Your task to perform on an android device: change the clock display to show seconds Image 0: 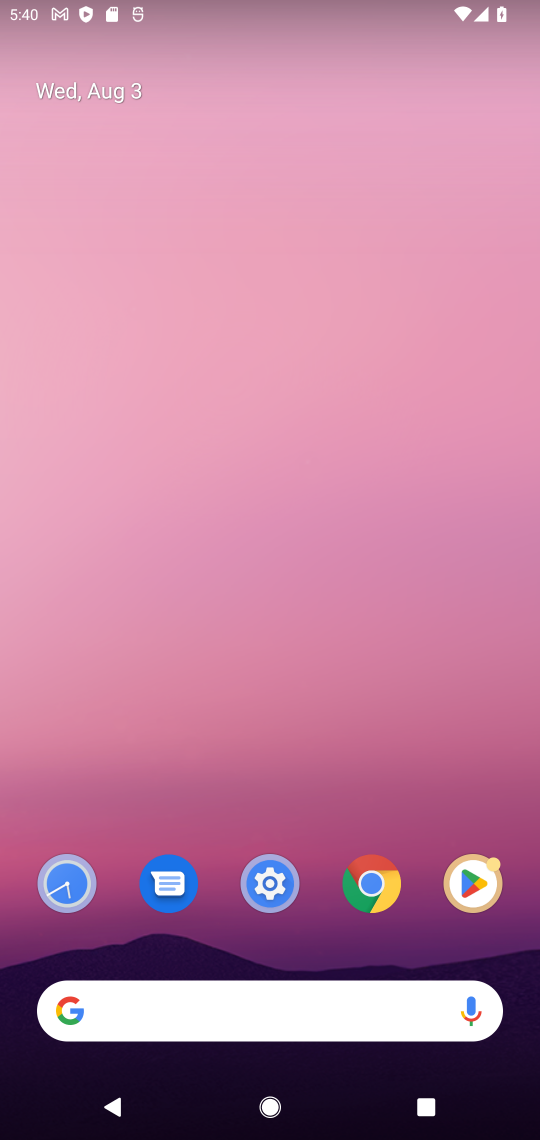
Step 0: drag from (294, 785) to (312, 0)
Your task to perform on an android device: change the clock display to show seconds Image 1: 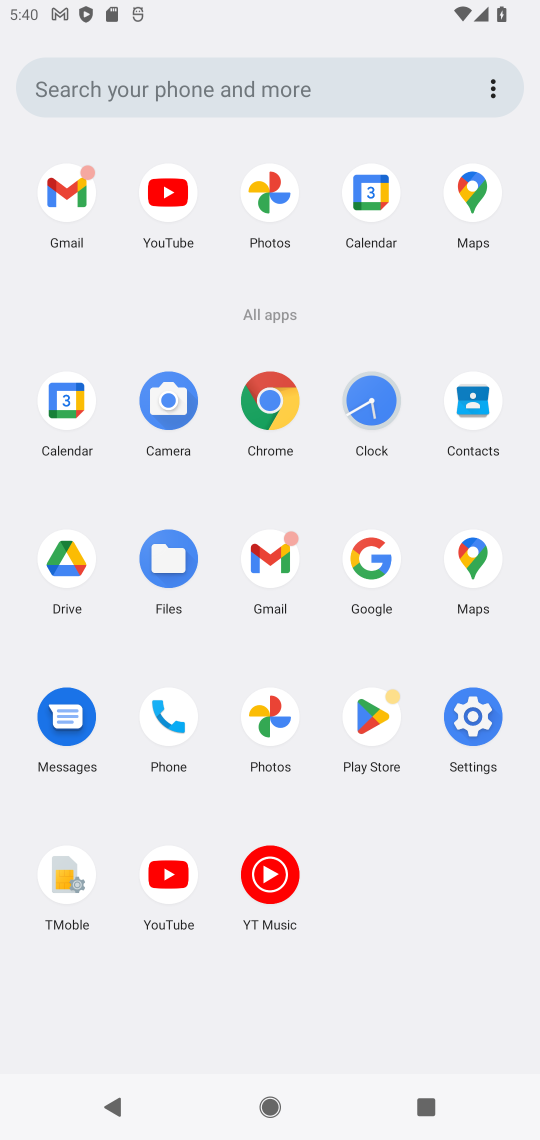
Step 1: click (469, 713)
Your task to perform on an android device: change the clock display to show seconds Image 2: 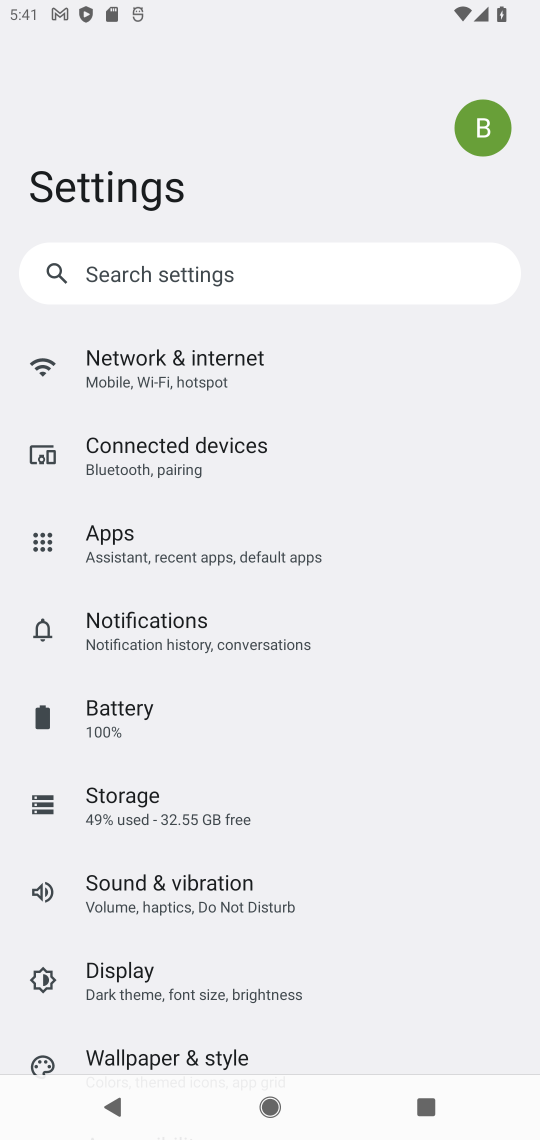
Step 2: click (131, 993)
Your task to perform on an android device: change the clock display to show seconds Image 3: 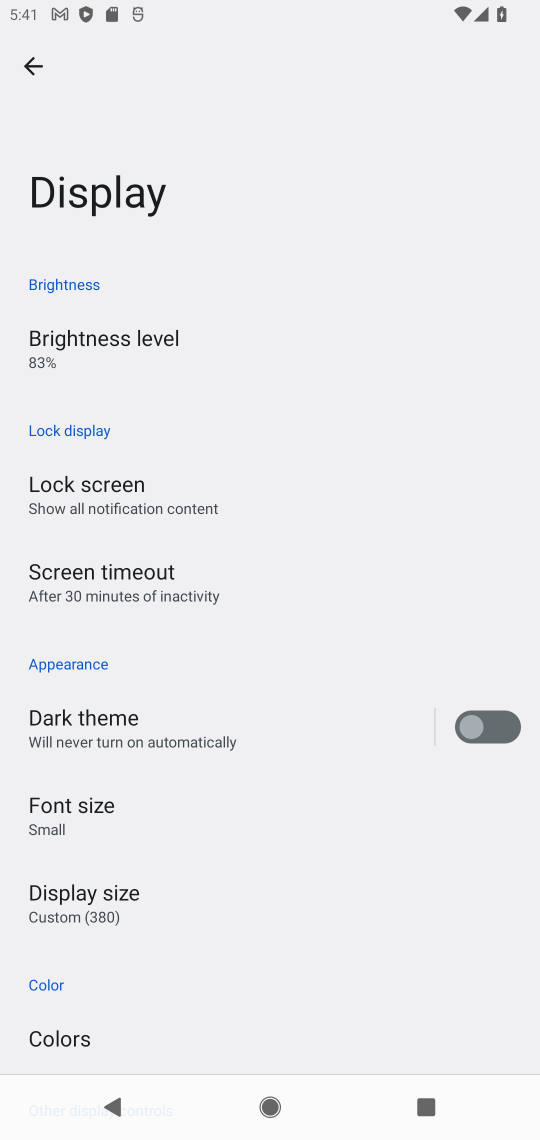
Step 3: click (123, 895)
Your task to perform on an android device: change the clock display to show seconds Image 4: 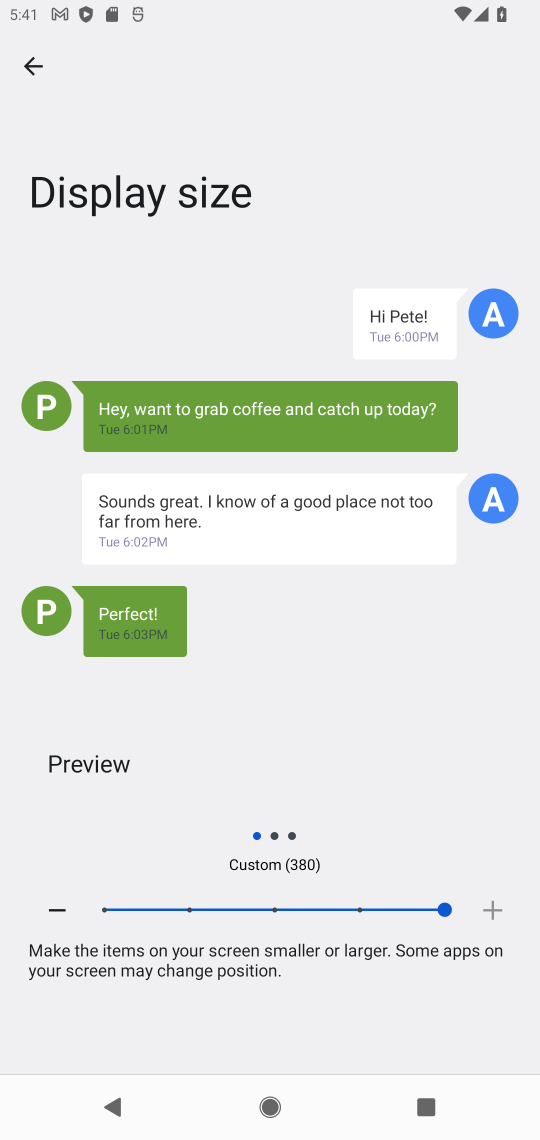
Step 4: click (49, 909)
Your task to perform on an android device: change the clock display to show seconds Image 5: 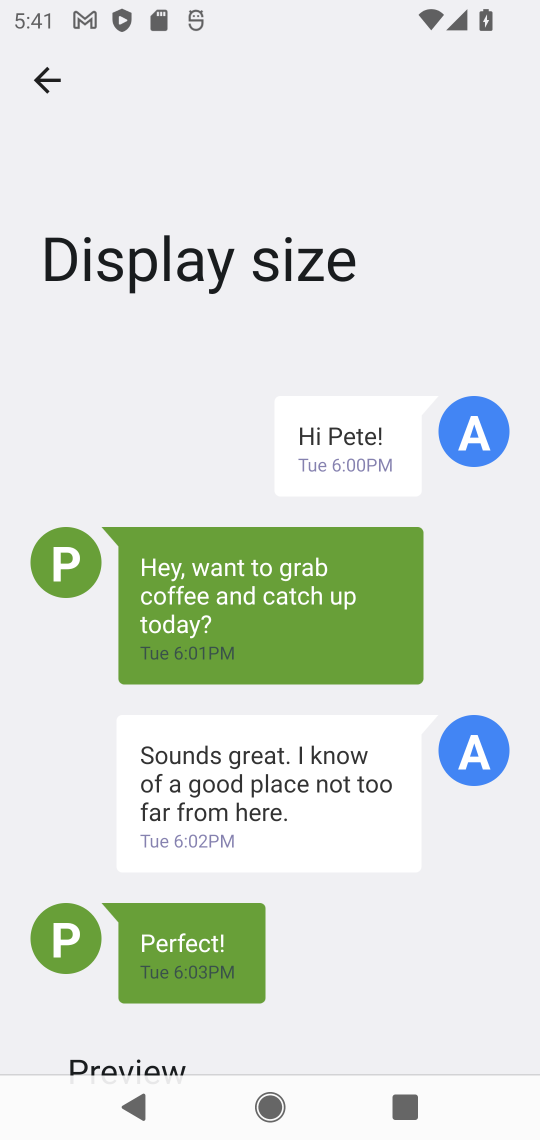
Step 5: drag from (281, 983) to (355, 183)
Your task to perform on an android device: change the clock display to show seconds Image 6: 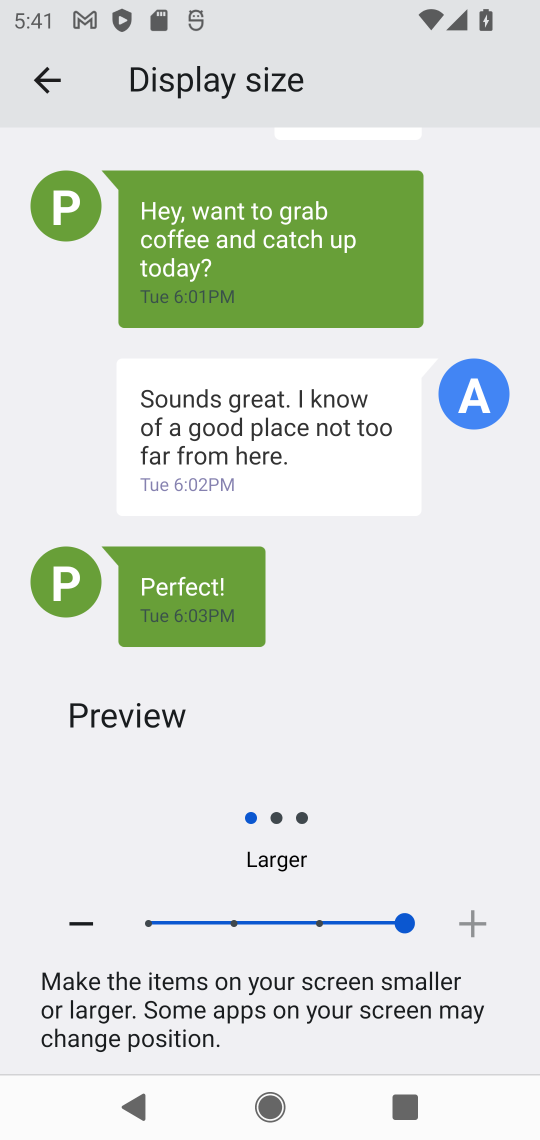
Step 6: click (315, 921)
Your task to perform on an android device: change the clock display to show seconds Image 7: 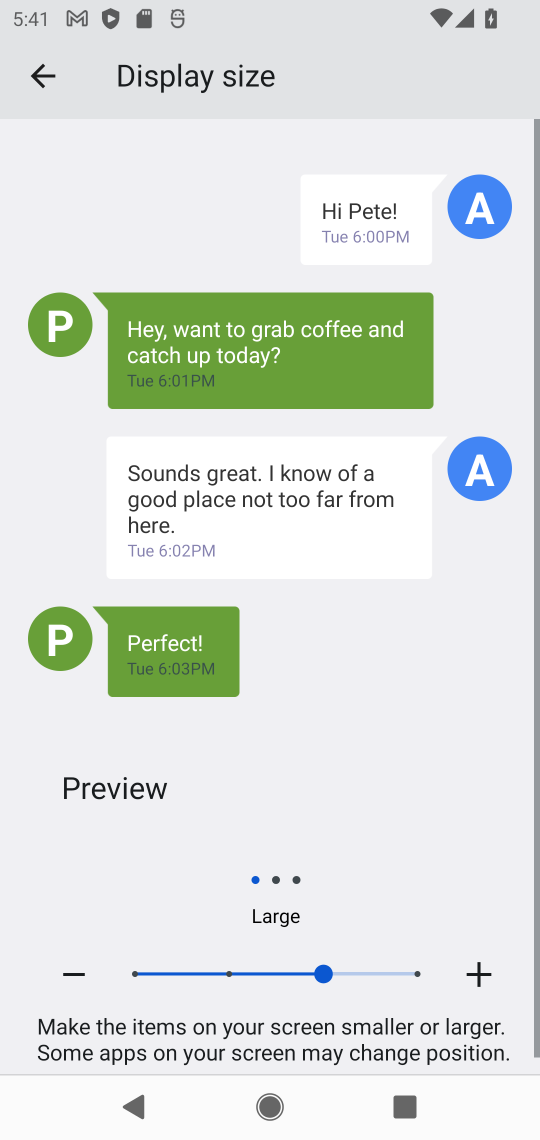
Step 7: click (56, 74)
Your task to perform on an android device: change the clock display to show seconds Image 8: 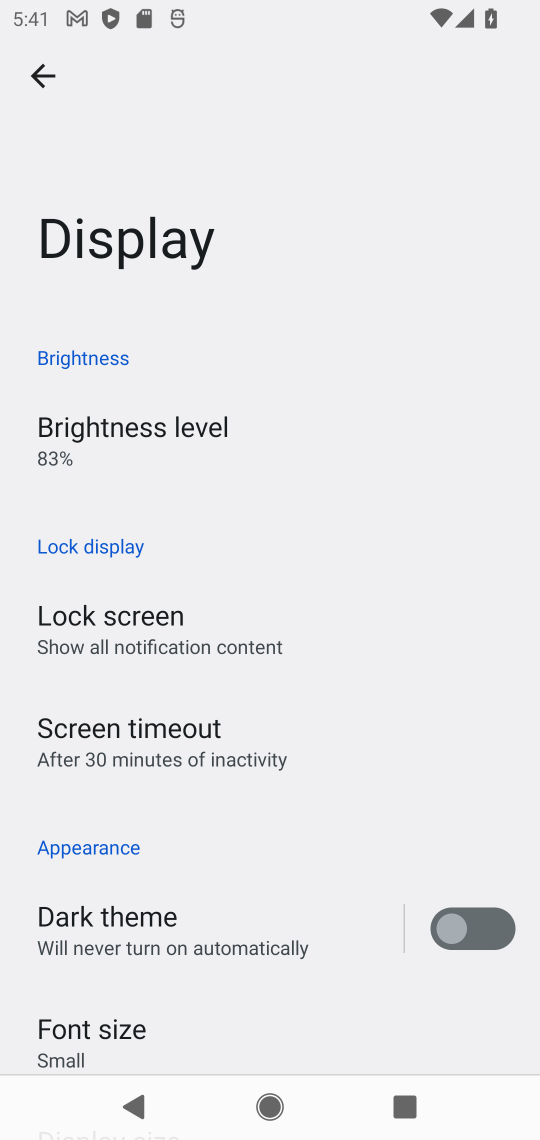
Step 8: click (47, 76)
Your task to perform on an android device: change the clock display to show seconds Image 9: 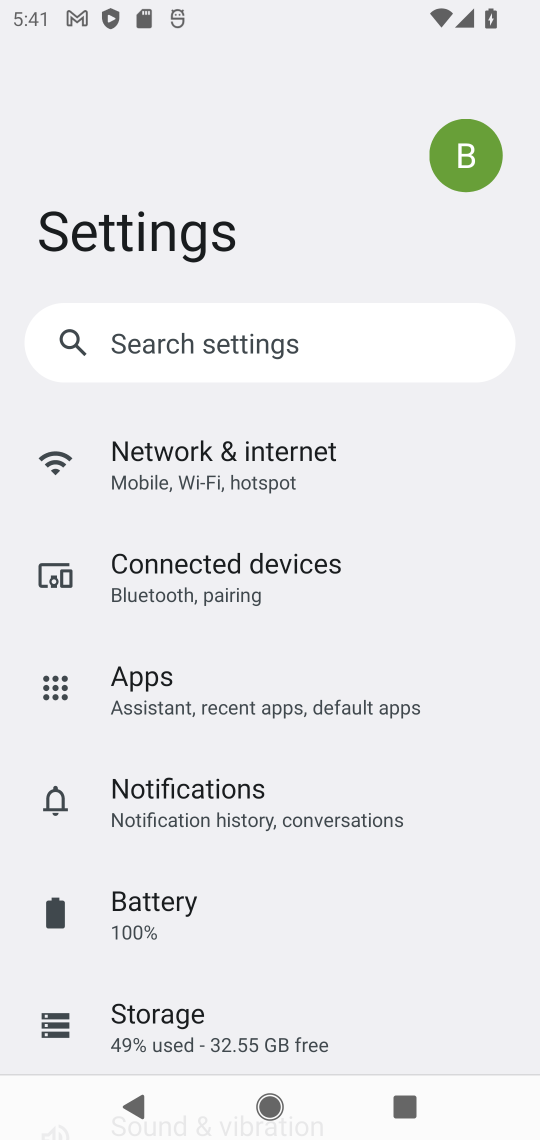
Step 9: task complete